Your task to perform on an android device: Go to CNN.com Image 0: 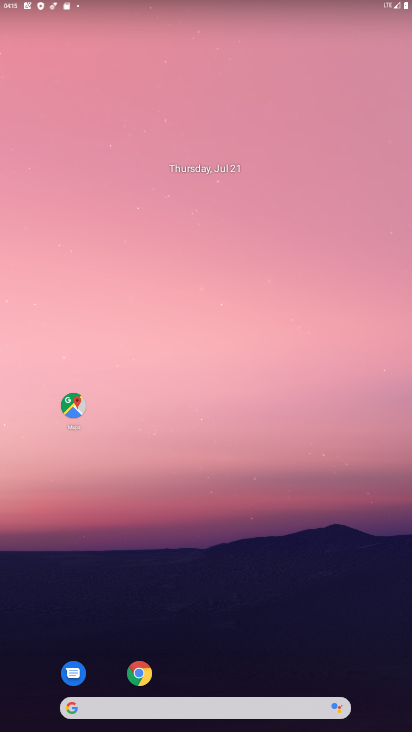
Step 0: drag from (304, 610) to (239, 100)
Your task to perform on an android device: Go to CNN.com Image 1: 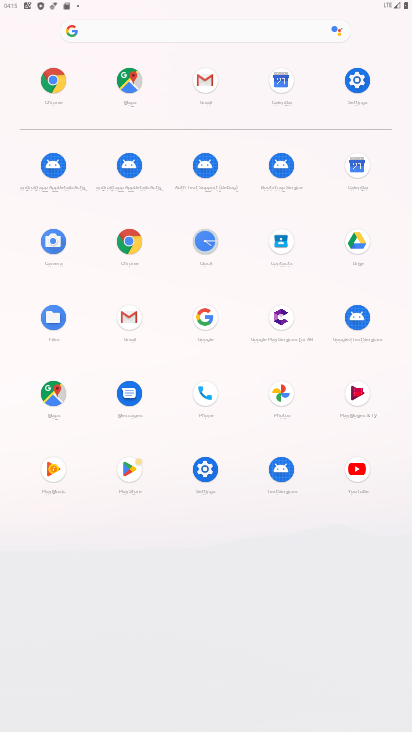
Step 1: click (127, 234)
Your task to perform on an android device: Go to CNN.com Image 2: 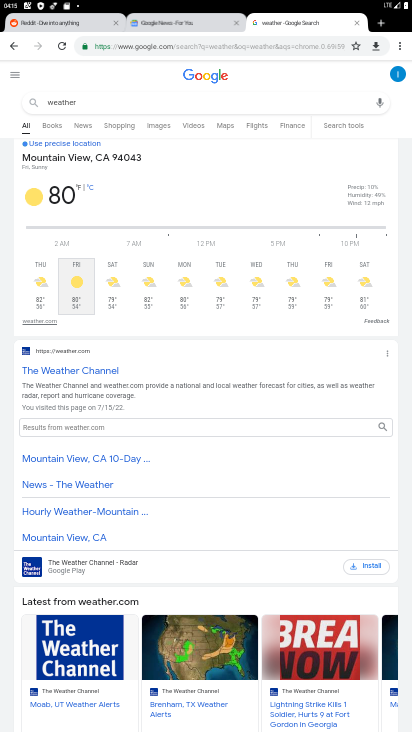
Step 2: click (191, 48)
Your task to perform on an android device: Go to CNN.com Image 3: 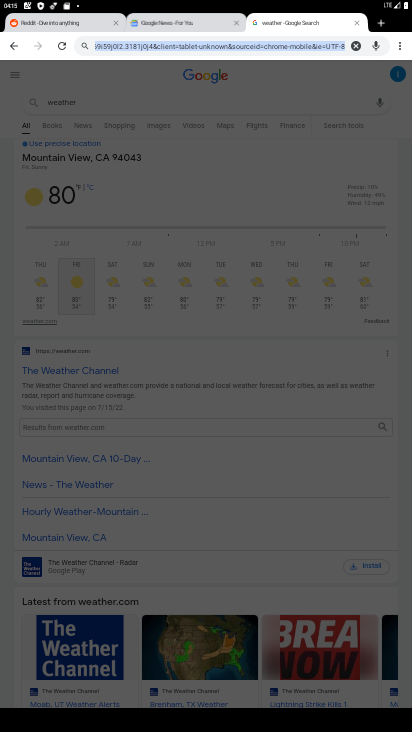
Step 3: type "cnn.com"
Your task to perform on an android device: Go to CNN.com Image 4: 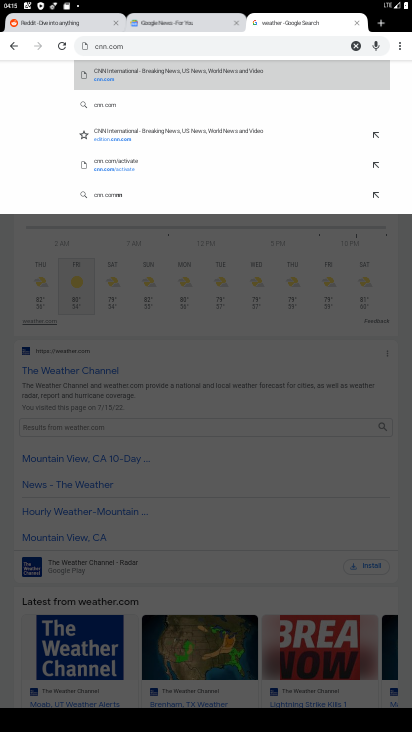
Step 4: click (134, 79)
Your task to perform on an android device: Go to CNN.com Image 5: 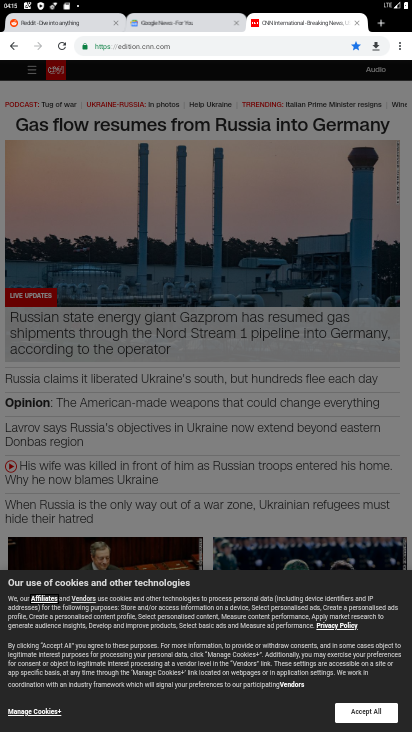
Step 5: task complete